Your task to perform on an android device: toggle priority inbox in the gmail app Image 0: 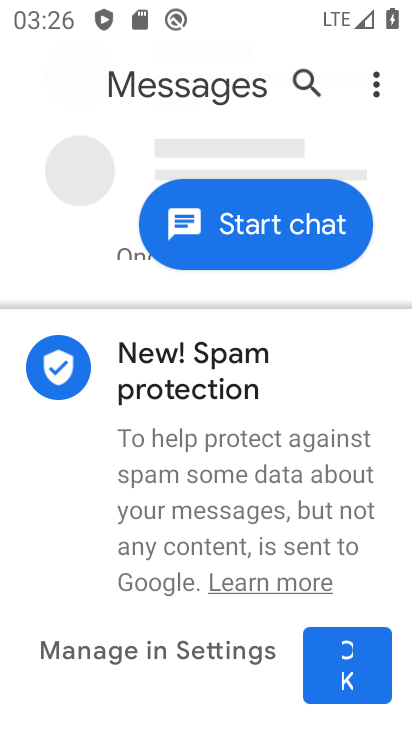
Step 0: press back button
Your task to perform on an android device: toggle priority inbox in the gmail app Image 1: 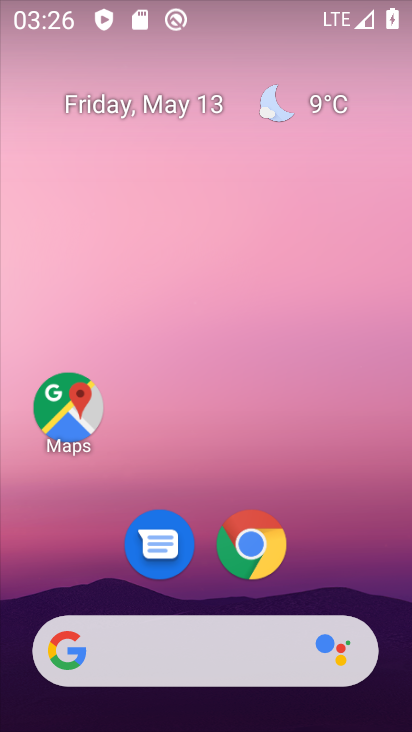
Step 1: drag from (333, 545) to (237, 80)
Your task to perform on an android device: toggle priority inbox in the gmail app Image 2: 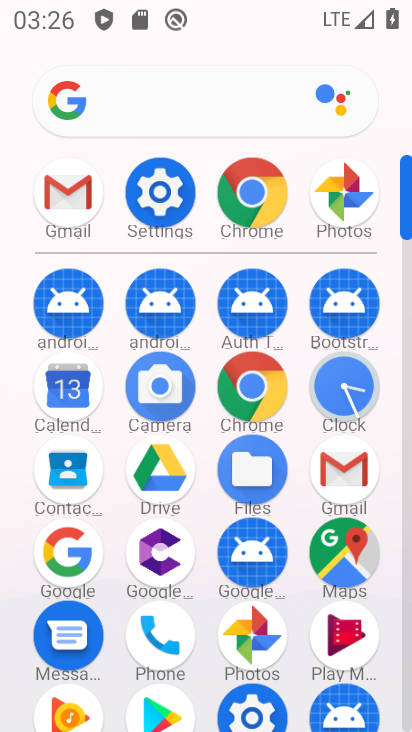
Step 2: drag from (15, 518) to (16, 239)
Your task to perform on an android device: toggle priority inbox in the gmail app Image 3: 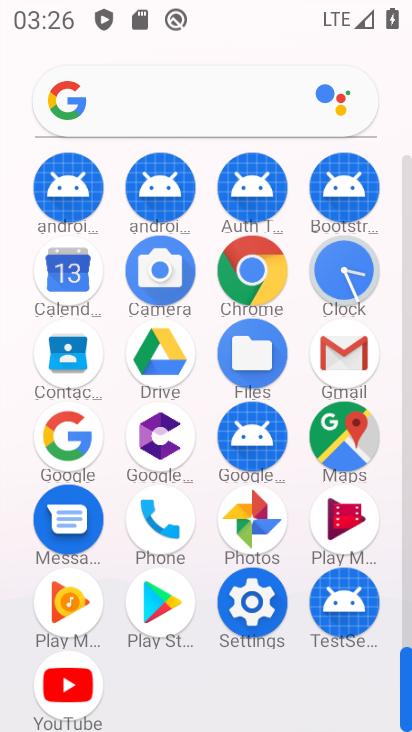
Step 3: click (347, 346)
Your task to perform on an android device: toggle priority inbox in the gmail app Image 4: 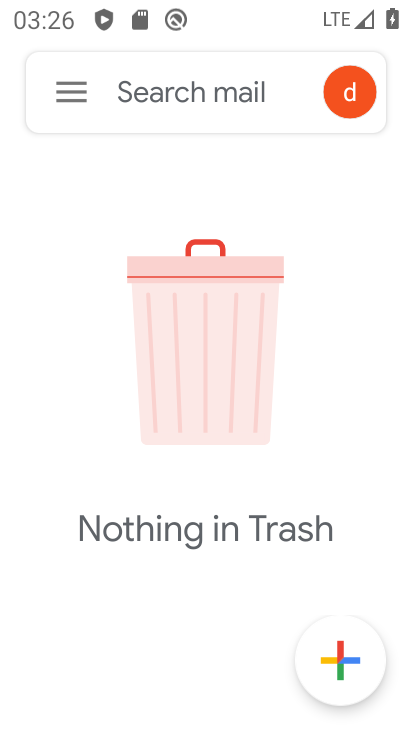
Step 4: click (50, 91)
Your task to perform on an android device: toggle priority inbox in the gmail app Image 5: 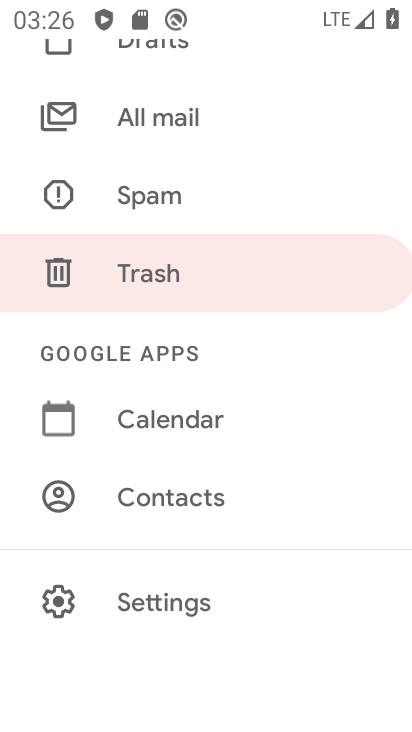
Step 5: click (199, 597)
Your task to perform on an android device: toggle priority inbox in the gmail app Image 6: 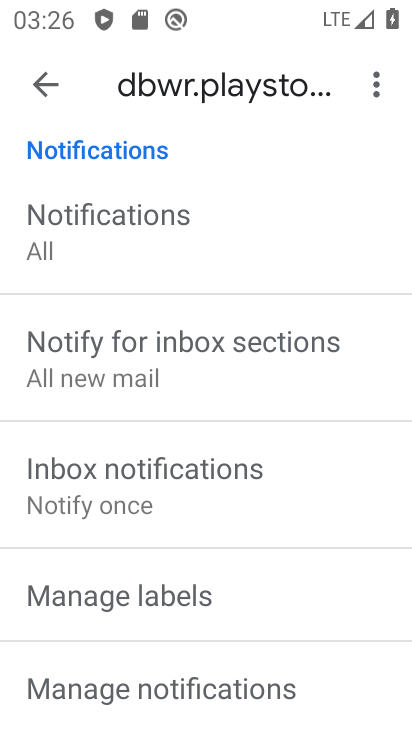
Step 6: drag from (246, 581) to (246, 304)
Your task to perform on an android device: toggle priority inbox in the gmail app Image 7: 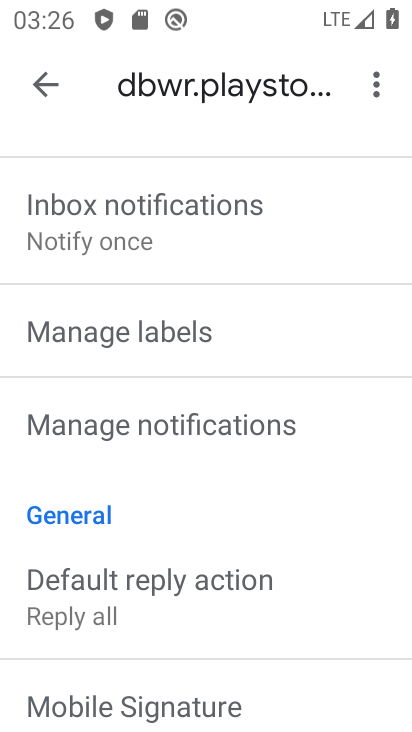
Step 7: drag from (219, 238) to (225, 518)
Your task to perform on an android device: toggle priority inbox in the gmail app Image 8: 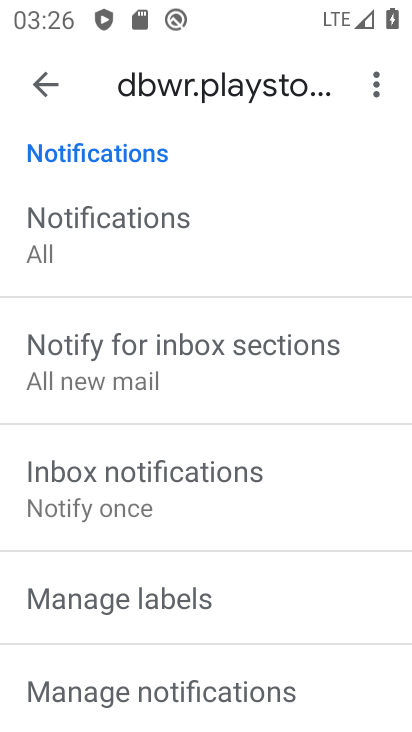
Step 8: drag from (187, 246) to (193, 524)
Your task to perform on an android device: toggle priority inbox in the gmail app Image 9: 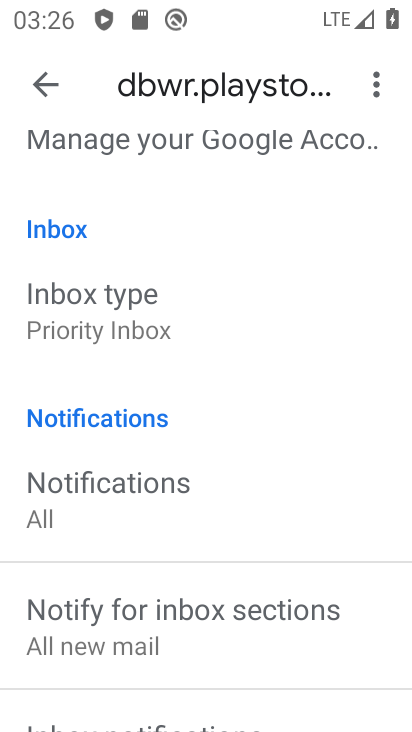
Step 9: click (186, 318)
Your task to perform on an android device: toggle priority inbox in the gmail app Image 10: 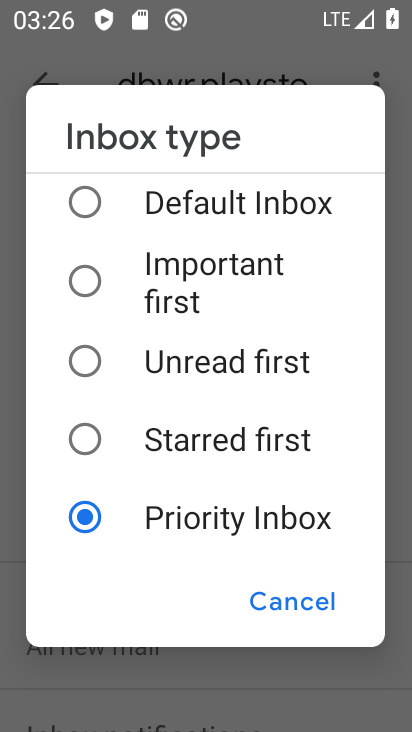
Step 10: click (143, 510)
Your task to perform on an android device: toggle priority inbox in the gmail app Image 11: 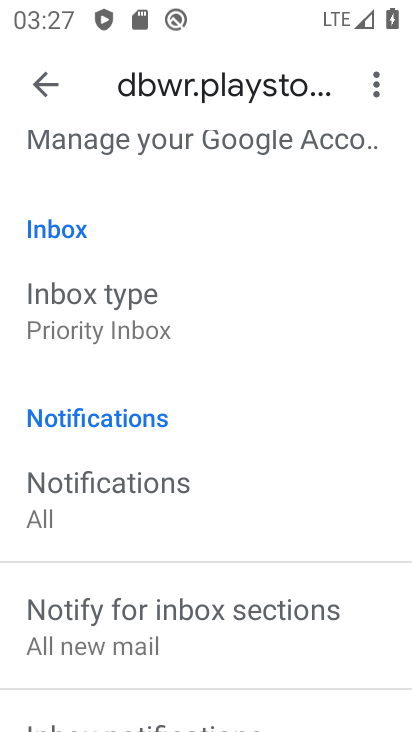
Step 11: click (157, 322)
Your task to perform on an android device: toggle priority inbox in the gmail app Image 12: 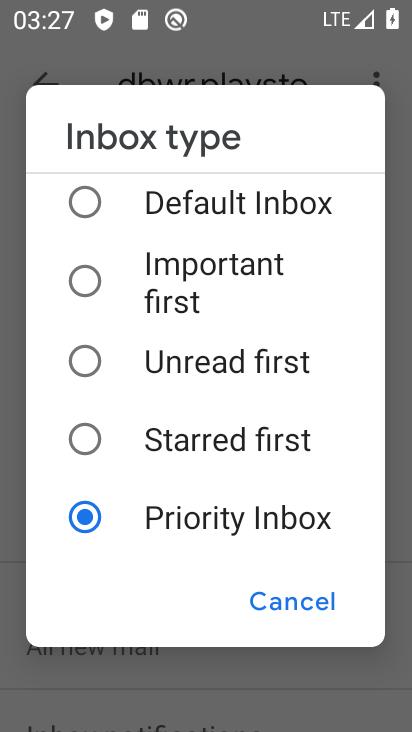
Step 12: click (188, 202)
Your task to perform on an android device: toggle priority inbox in the gmail app Image 13: 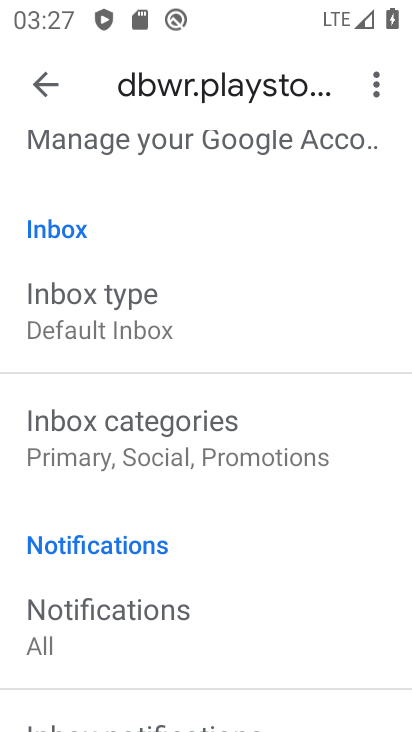
Step 13: task complete